Your task to perform on an android device: turn on location history Image 0: 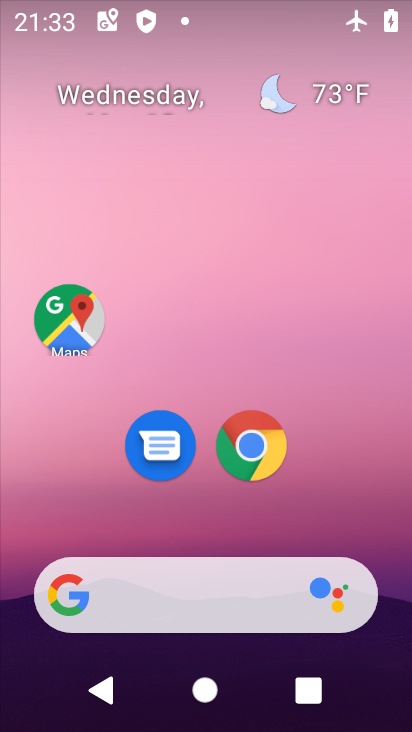
Step 0: drag from (298, 515) to (313, 168)
Your task to perform on an android device: turn on location history Image 1: 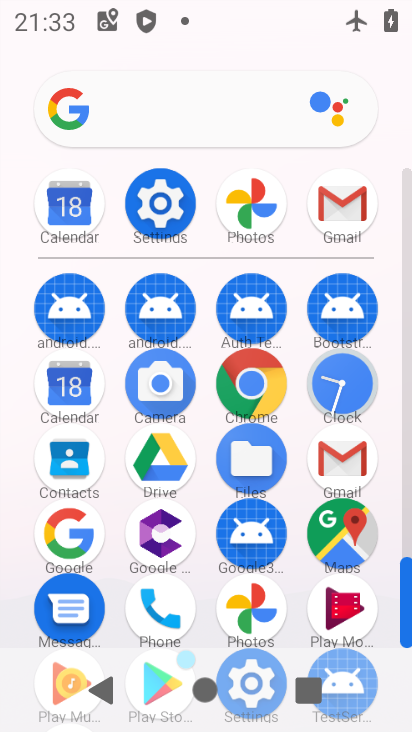
Step 1: click (154, 189)
Your task to perform on an android device: turn on location history Image 2: 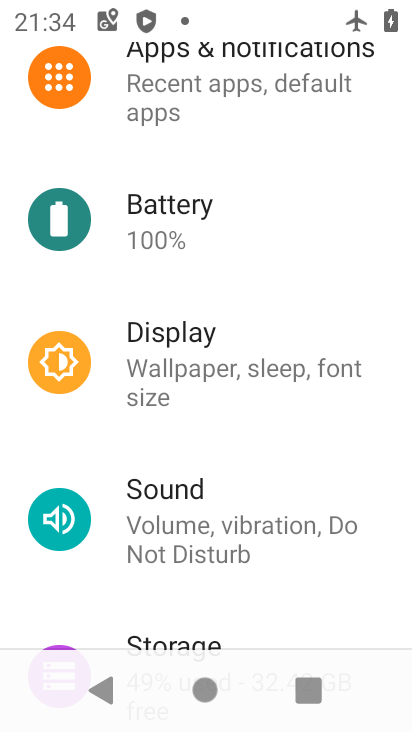
Step 2: drag from (267, 606) to (311, 152)
Your task to perform on an android device: turn on location history Image 3: 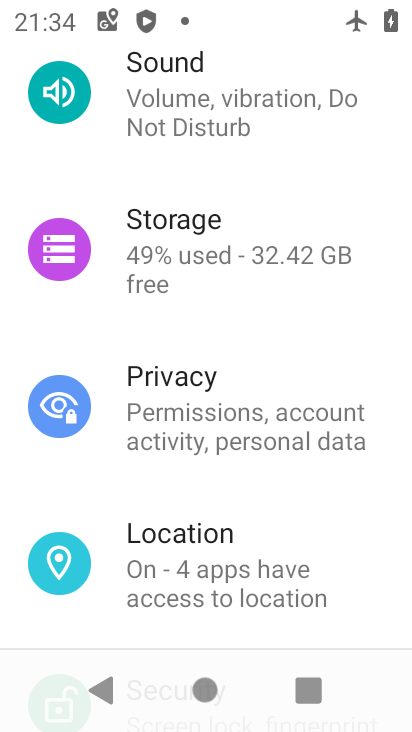
Step 3: click (227, 570)
Your task to perform on an android device: turn on location history Image 4: 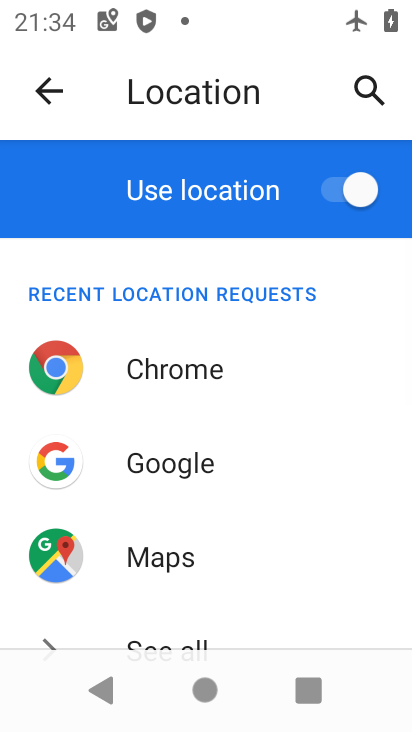
Step 4: drag from (231, 533) to (266, 326)
Your task to perform on an android device: turn on location history Image 5: 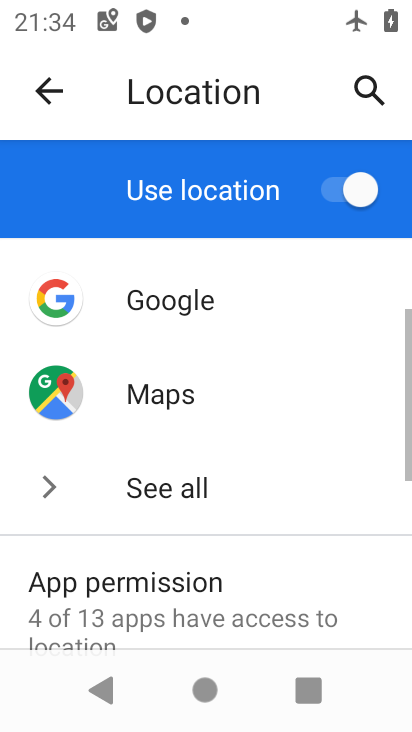
Step 5: drag from (214, 551) to (294, 244)
Your task to perform on an android device: turn on location history Image 6: 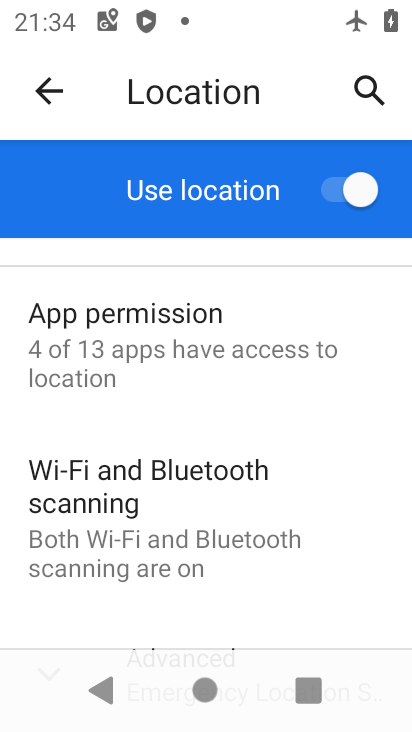
Step 6: click (222, 333)
Your task to perform on an android device: turn on location history Image 7: 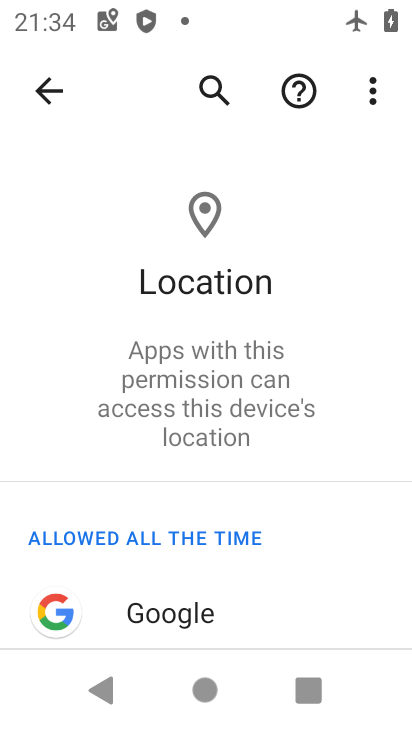
Step 7: click (37, 64)
Your task to perform on an android device: turn on location history Image 8: 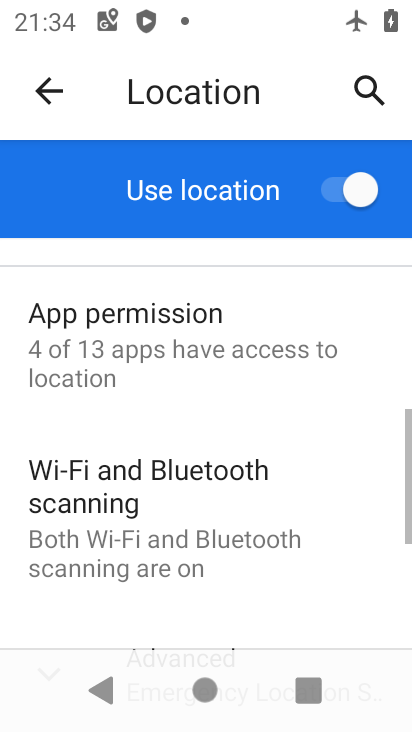
Step 8: drag from (298, 533) to (338, 172)
Your task to perform on an android device: turn on location history Image 9: 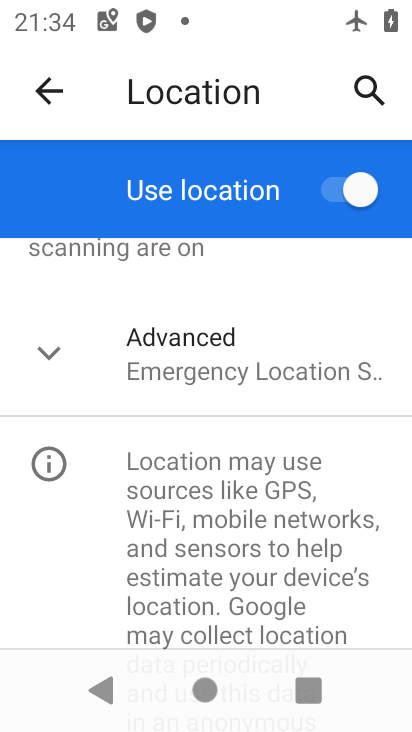
Step 9: click (225, 367)
Your task to perform on an android device: turn on location history Image 10: 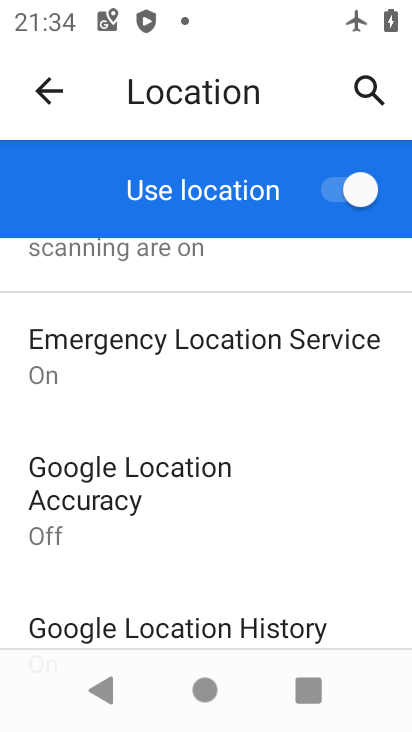
Step 10: drag from (172, 530) to (220, 407)
Your task to perform on an android device: turn on location history Image 11: 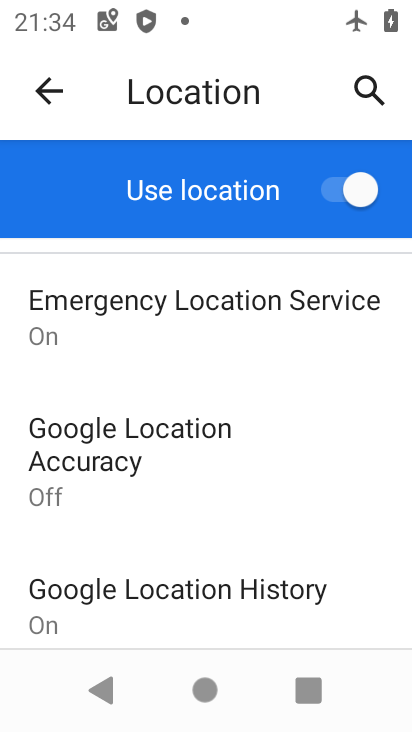
Step 11: click (201, 591)
Your task to perform on an android device: turn on location history Image 12: 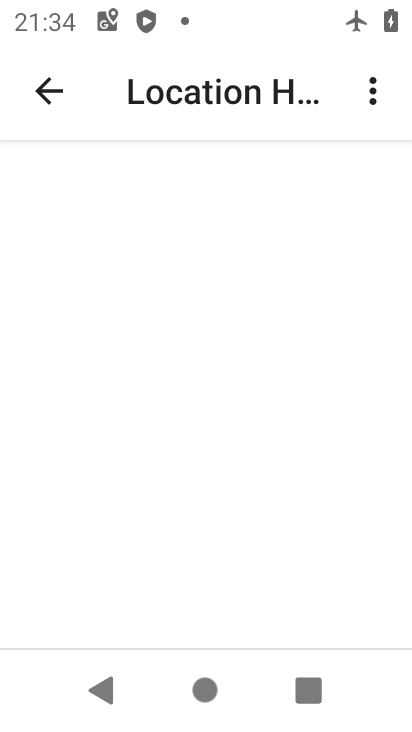
Step 12: task complete